Your task to perform on an android device: toggle notification dots Image 0: 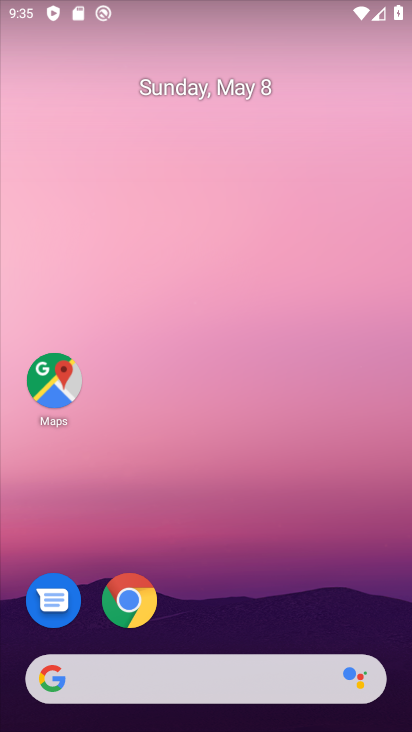
Step 0: drag from (283, 542) to (284, 118)
Your task to perform on an android device: toggle notification dots Image 1: 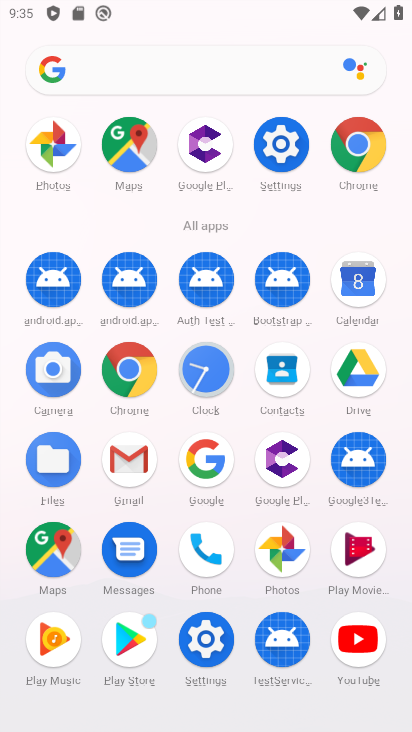
Step 1: click (277, 141)
Your task to perform on an android device: toggle notification dots Image 2: 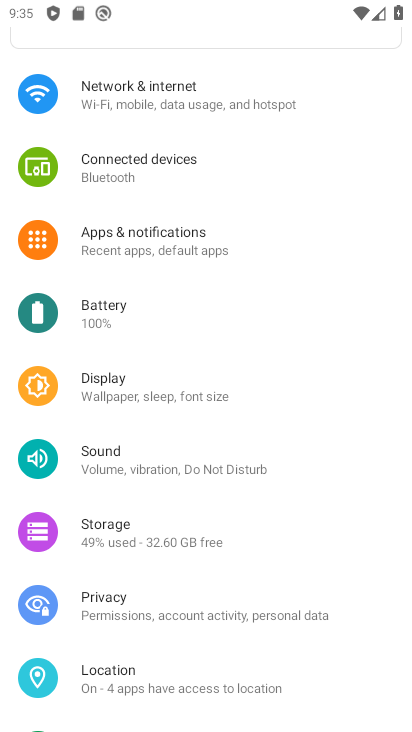
Step 2: click (208, 255)
Your task to perform on an android device: toggle notification dots Image 3: 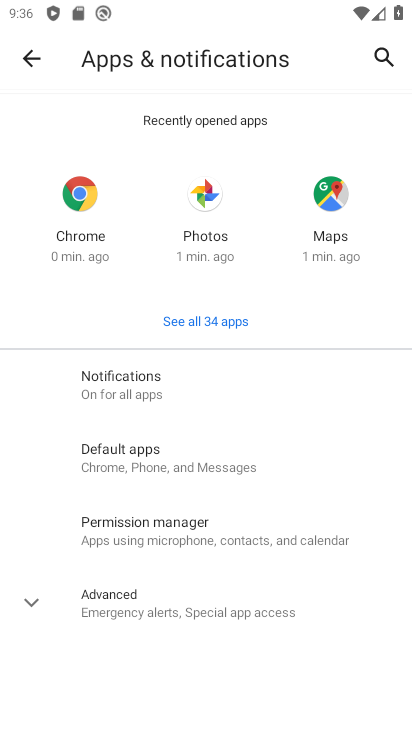
Step 3: click (190, 395)
Your task to perform on an android device: toggle notification dots Image 4: 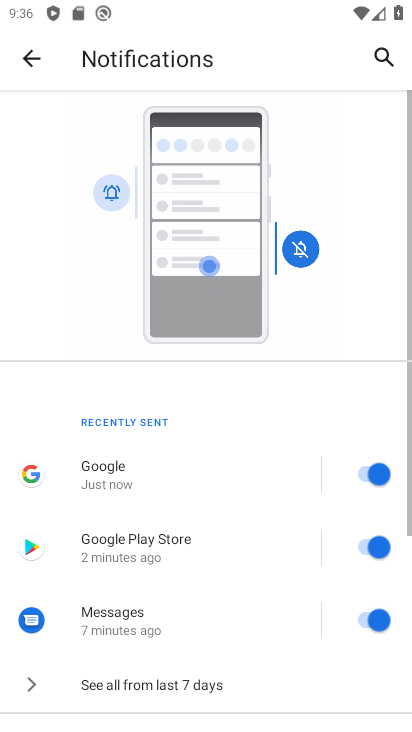
Step 4: drag from (231, 639) to (281, 193)
Your task to perform on an android device: toggle notification dots Image 5: 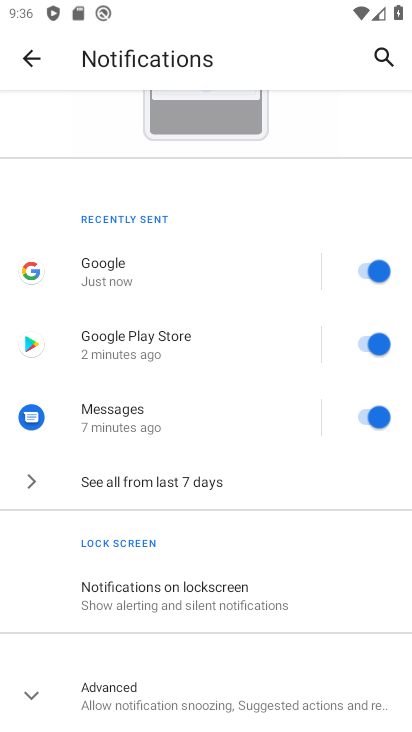
Step 5: click (30, 696)
Your task to perform on an android device: toggle notification dots Image 6: 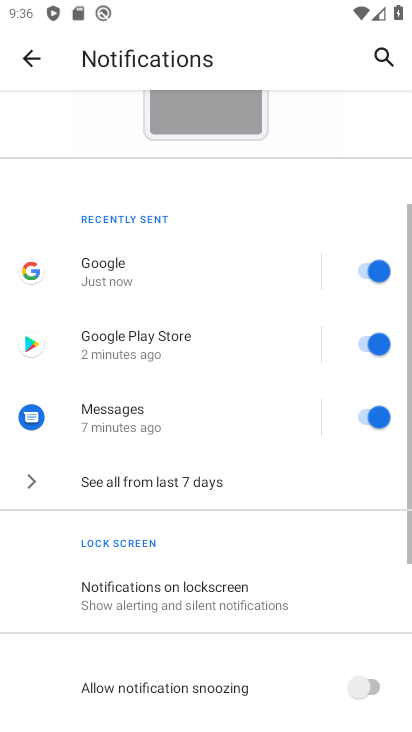
Step 6: drag from (166, 670) to (216, 290)
Your task to perform on an android device: toggle notification dots Image 7: 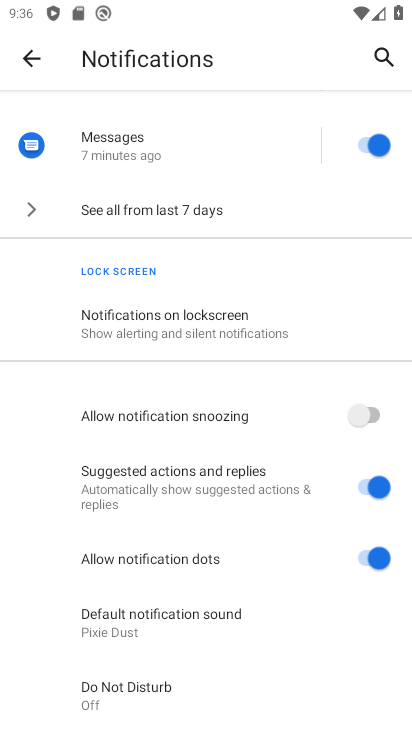
Step 7: click (372, 560)
Your task to perform on an android device: toggle notification dots Image 8: 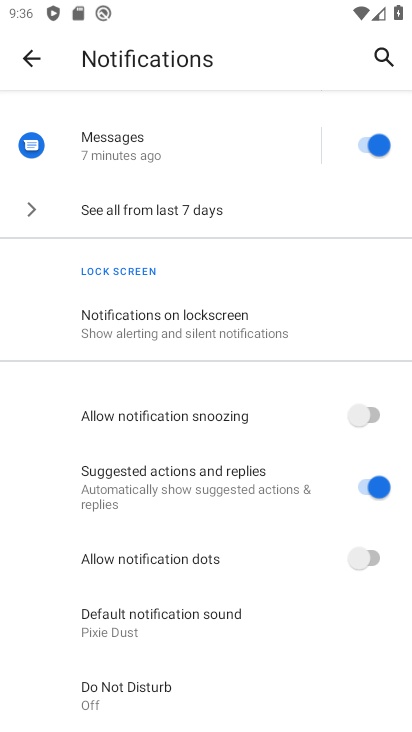
Step 8: task complete